Your task to perform on an android device: Open Google Chrome and click the shortcut for Amazon.com Image 0: 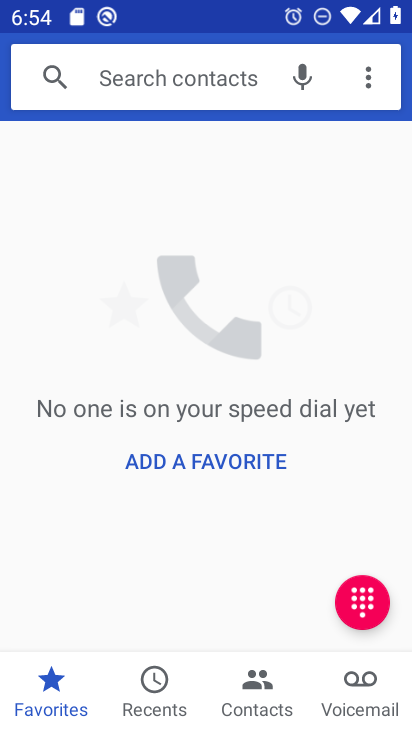
Step 0: press home button
Your task to perform on an android device: Open Google Chrome and click the shortcut for Amazon.com Image 1: 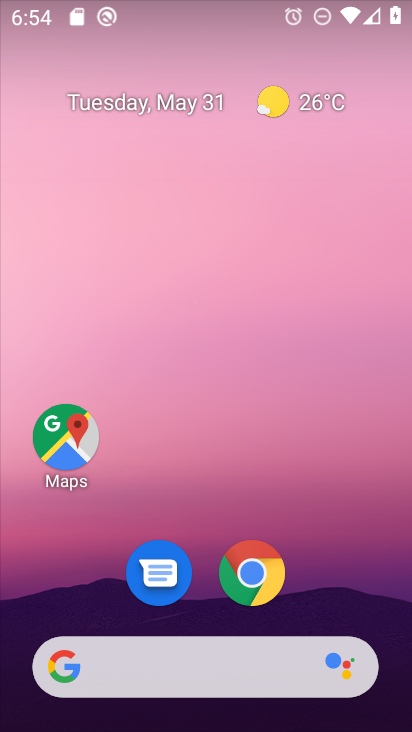
Step 1: drag from (387, 668) to (354, 1)
Your task to perform on an android device: Open Google Chrome and click the shortcut for Amazon.com Image 2: 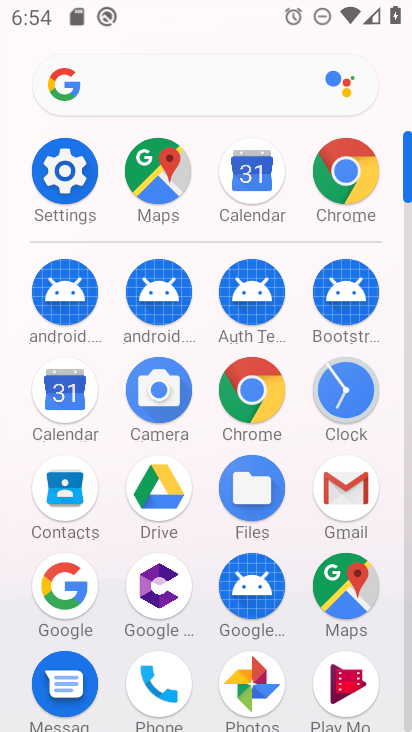
Step 2: click (333, 195)
Your task to perform on an android device: Open Google Chrome and click the shortcut for Amazon.com Image 3: 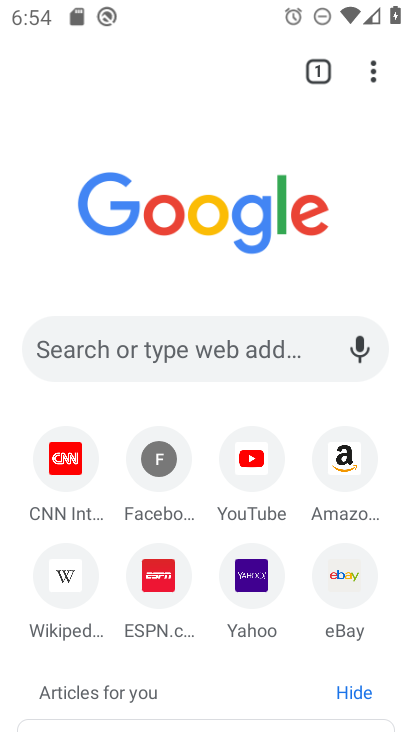
Step 3: click (333, 476)
Your task to perform on an android device: Open Google Chrome and click the shortcut for Amazon.com Image 4: 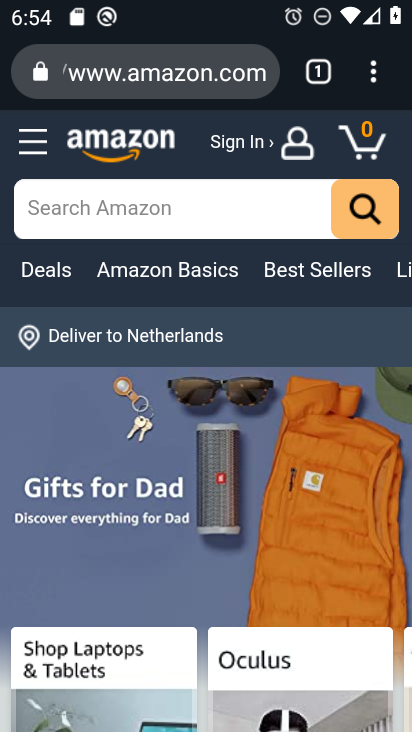
Step 4: task complete